Your task to perform on an android device: Go to display settings Image 0: 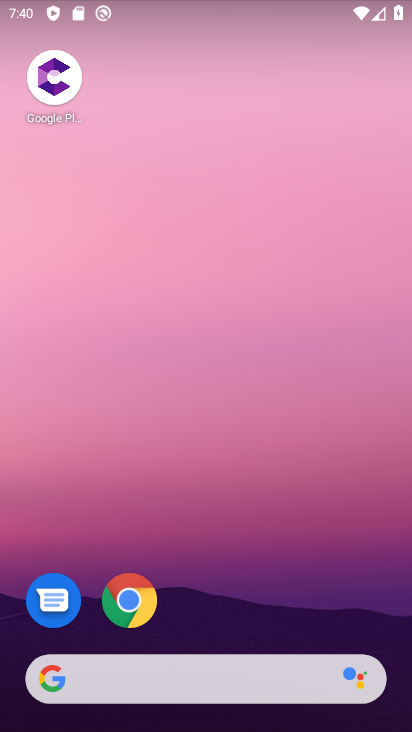
Step 0: drag from (194, 616) to (190, 55)
Your task to perform on an android device: Go to display settings Image 1: 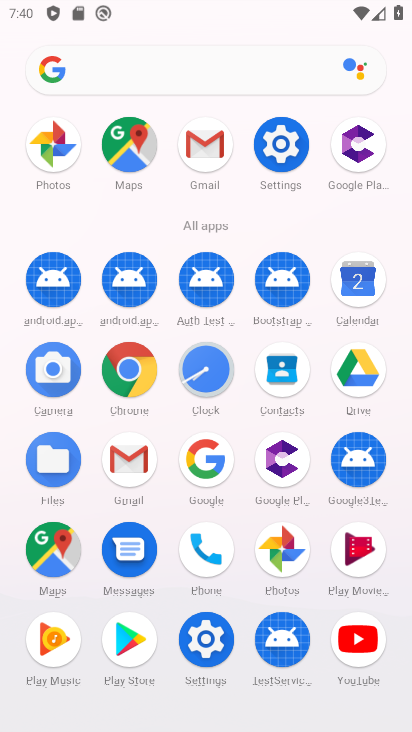
Step 1: click (274, 140)
Your task to perform on an android device: Go to display settings Image 2: 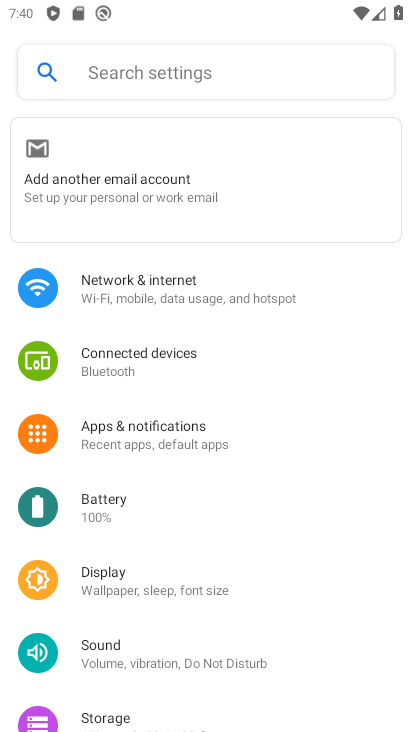
Step 2: click (125, 582)
Your task to perform on an android device: Go to display settings Image 3: 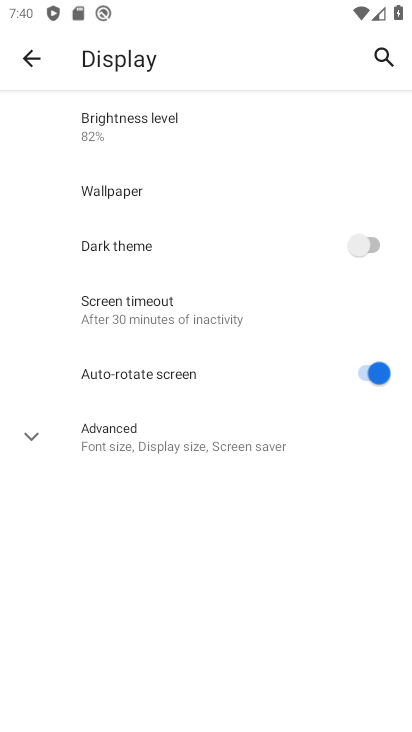
Step 3: drag from (203, 531) to (197, 207)
Your task to perform on an android device: Go to display settings Image 4: 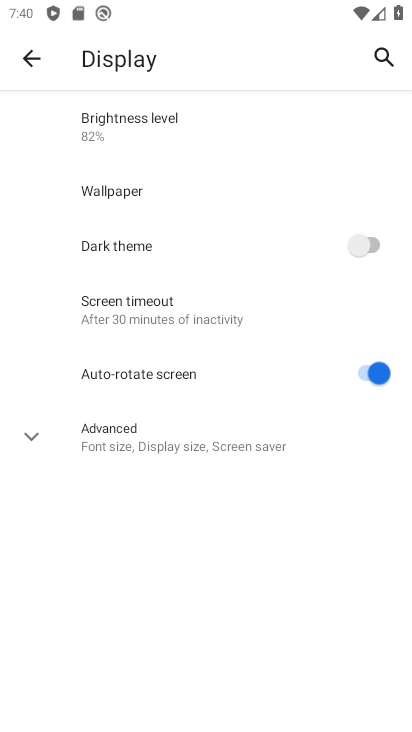
Step 4: drag from (175, 450) to (229, 153)
Your task to perform on an android device: Go to display settings Image 5: 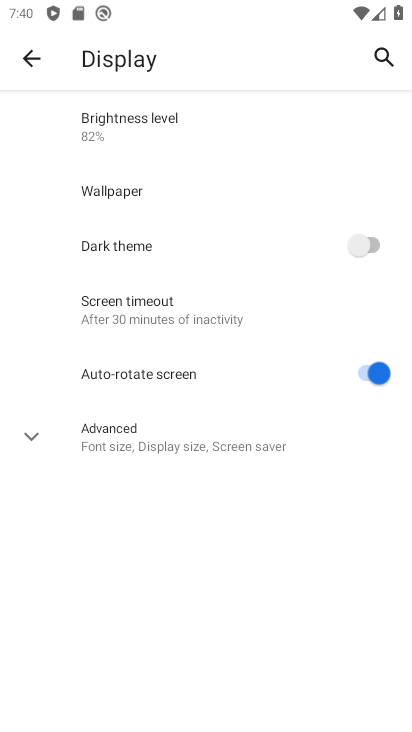
Step 5: click (169, 432)
Your task to perform on an android device: Go to display settings Image 6: 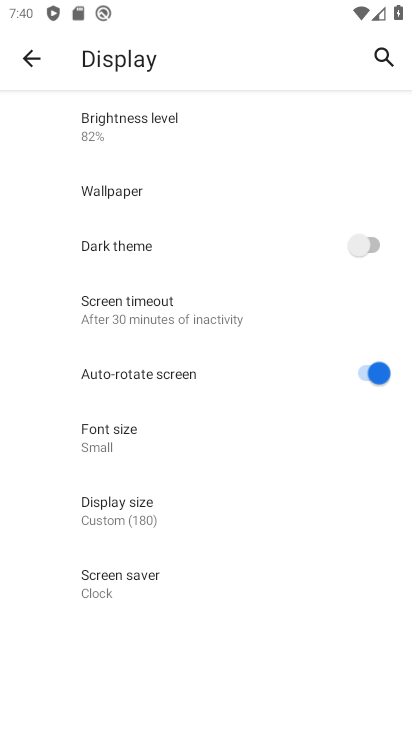
Step 6: task complete